Your task to perform on an android device: open app "eBay: The shopping marketplace" (install if not already installed) and enter user name: "articulated@icloud.com" and password: "excluding" Image 0: 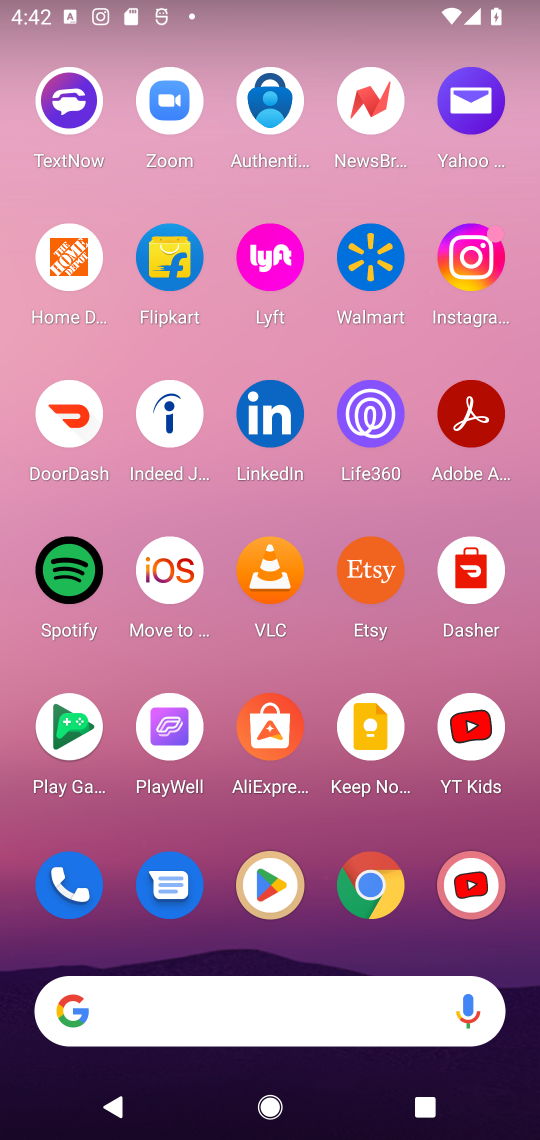
Step 0: click (283, 899)
Your task to perform on an android device: open app "eBay: The shopping marketplace" (install if not already installed) and enter user name: "articulated@icloud.com" and password: "excluding" Image 1: 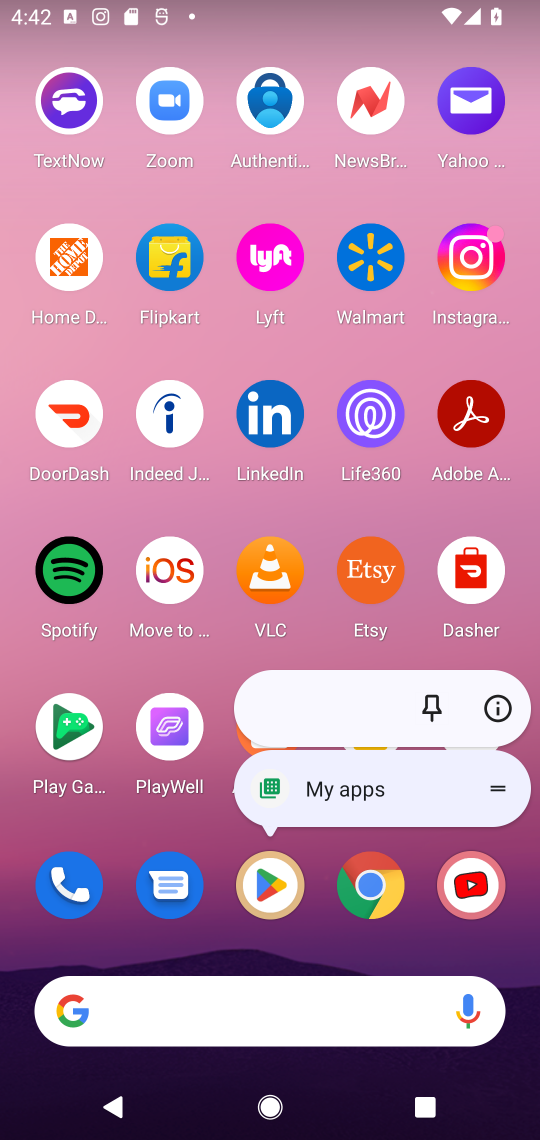
Step 1: click (262, 885)
Your task to perform on an android device: open app "eBay: The shopping marketplace" (install if not already installed) and enter user name: "articulated@icloud.com" and password: "excluding" Image 2: 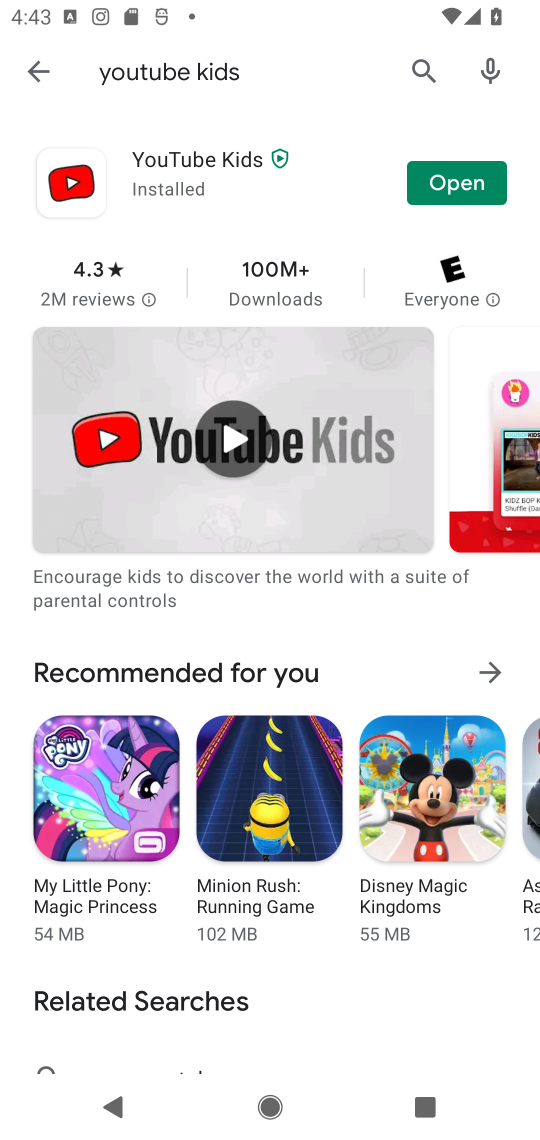
Step 2: click (410, 70)
Your task to perform on an android device: open app "eBay: The shopping marketplace" (install if not already installed) and enter user name: "articulated@icloud.com" and password: "excluding" Image 3: 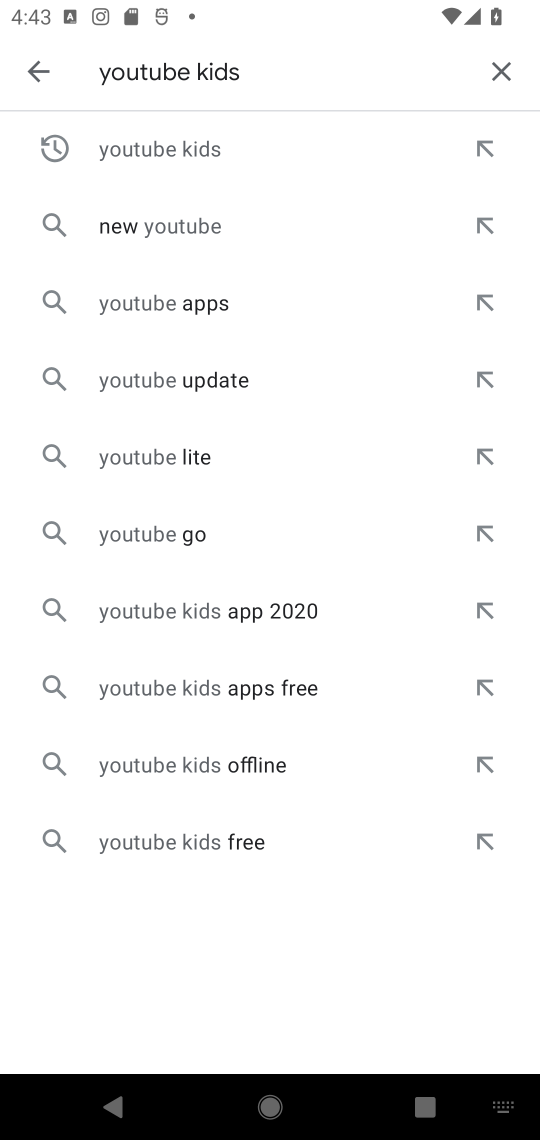
Step 3: click (495, 68)
Your task to perform on an android device: open app "eBay: The shopping marketplace" (install if not already installed) and enter user name: "articulated@icloud.com" and password: "excluding" Image 4: 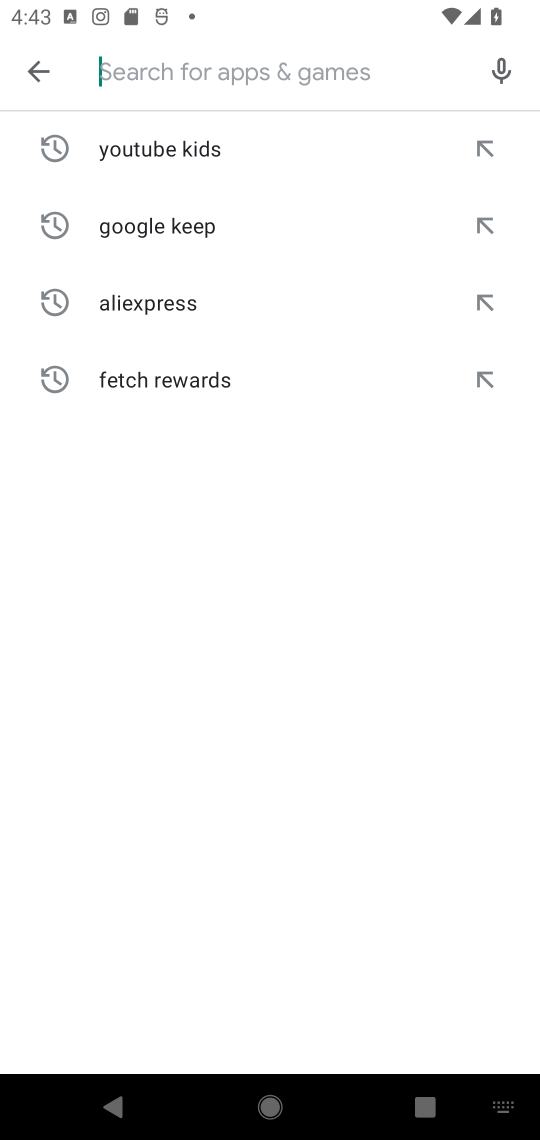
Step 4: type "eBay"
Your task to perform on an android device: open app "eBay: The shopping marketplace" (install if not already installed) and enter user name: "articulated@icloud.com" and password: "excluding" Image 5: 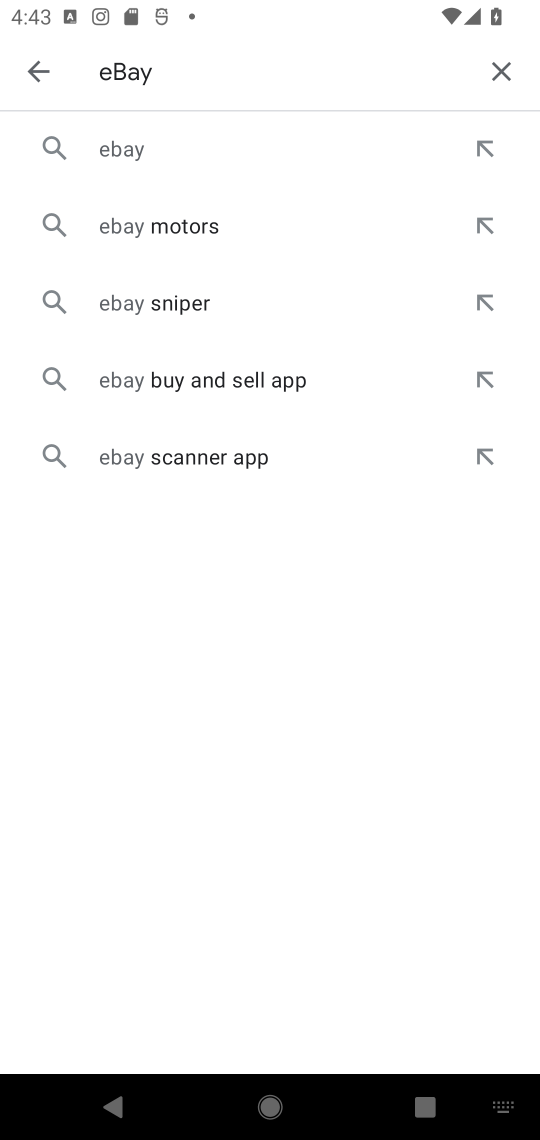
Step 5: click (156, 148)
Your task to perform on an android device: open app "eBay: The shopping marketplace" (install if not already installed) and enter user name: "articulated@icloud.com" and password: "excluding" Image 6: 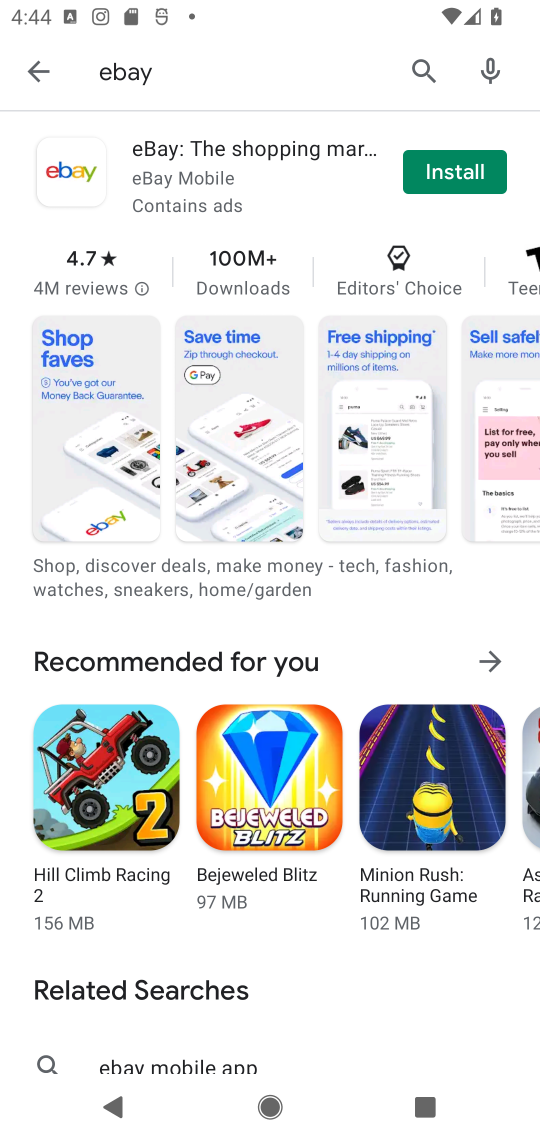
Step 6: click (458, 172)
Your task to perform on an android device: open app "eBay: The shopping marketplace" (install if not already installed) and enter user name: "articulated@icloud.com" and password: "excluding" Image 7: 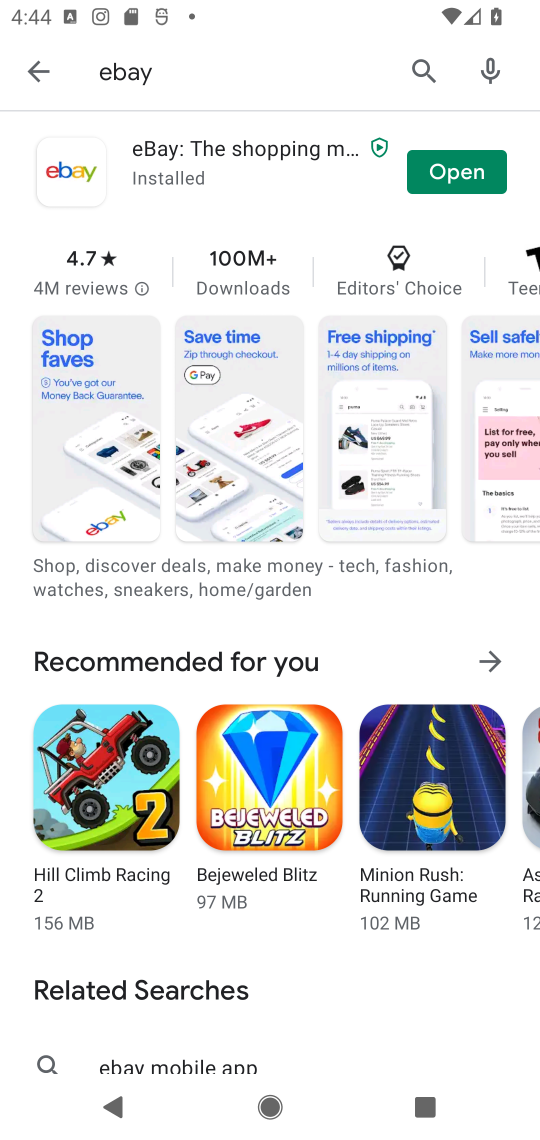
Step 7: click (459, 168)
Your task to perform on an android device: open app "eBay: The shopping marketplace" (install if not already installed) and enter user name: "articulated@icloud.com" and password: "excluding" Image 8: 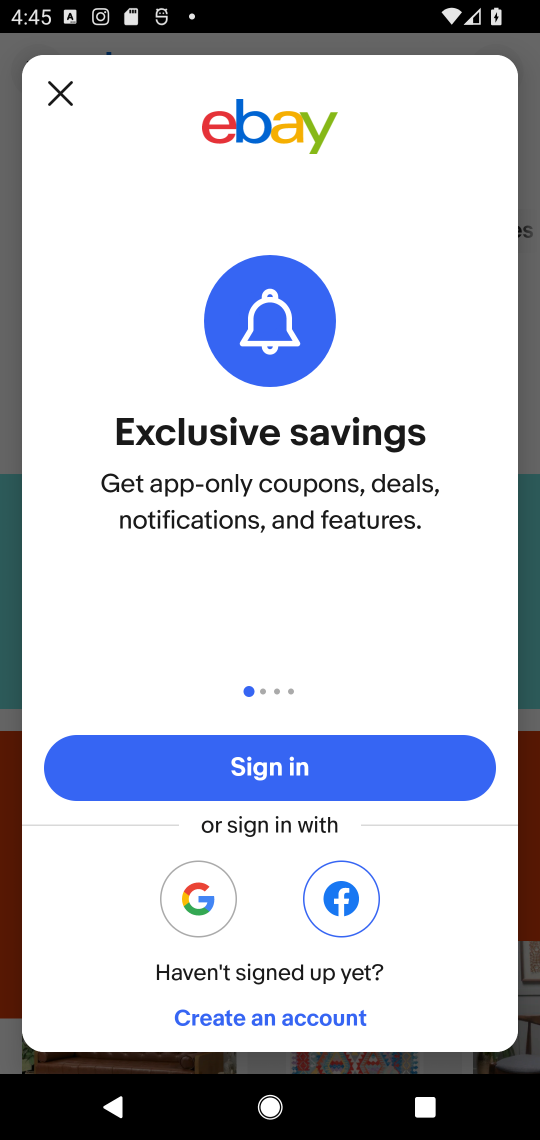
Step 8: click (257, 770)
Your task to perform on an android device: open app "eBay: The shopping marketplace" (install if not already installed) and enter user name: "articulated@icloud.com" and password: "excluding" Image 9: 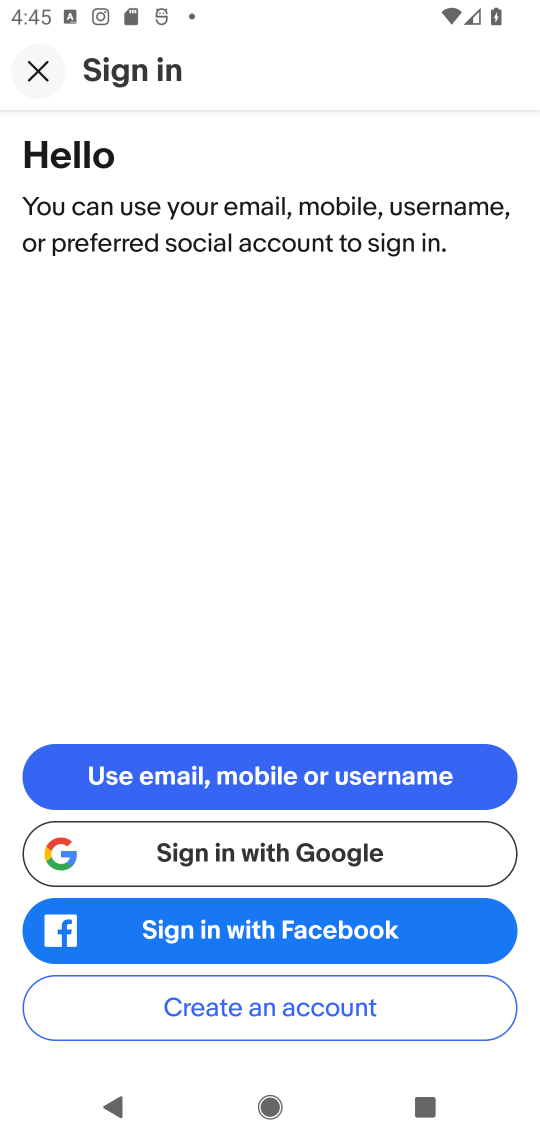
Step 9: click (239, 773)
Your task to perform on an android device: open app "eBay: The shopping marketplace" (install if not already installed) and enter user name: "articulated@icloud.com" and password: "excluding" Image 10: 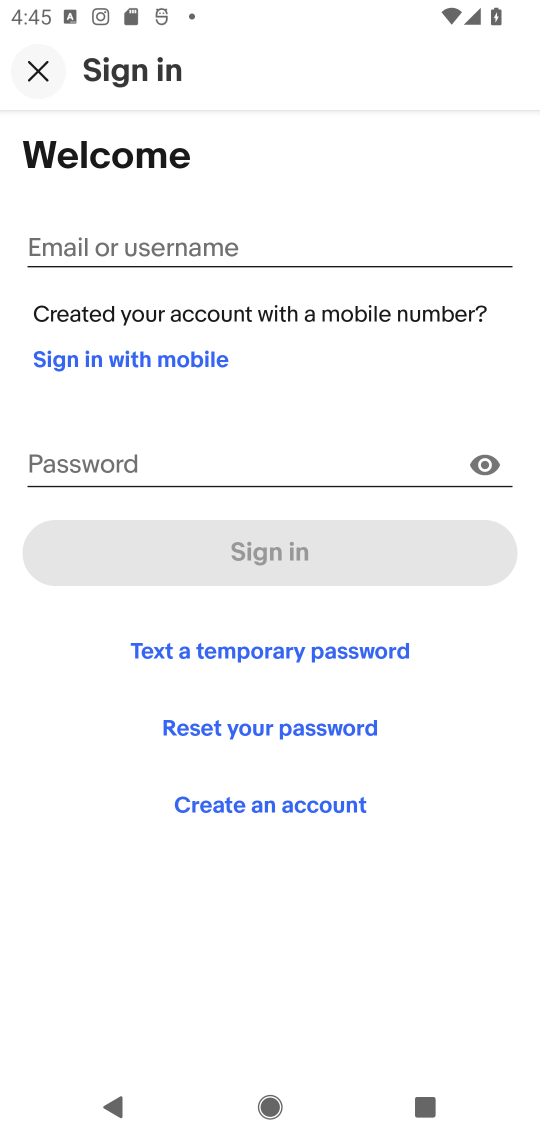
Step 10: click (92, 244)
Your task to perform on an android device: open app "eBay: The shopping marketplace" (install if not already installed) and enter user name: "articulated@icloud.com" and password: "excluding" Image 11: 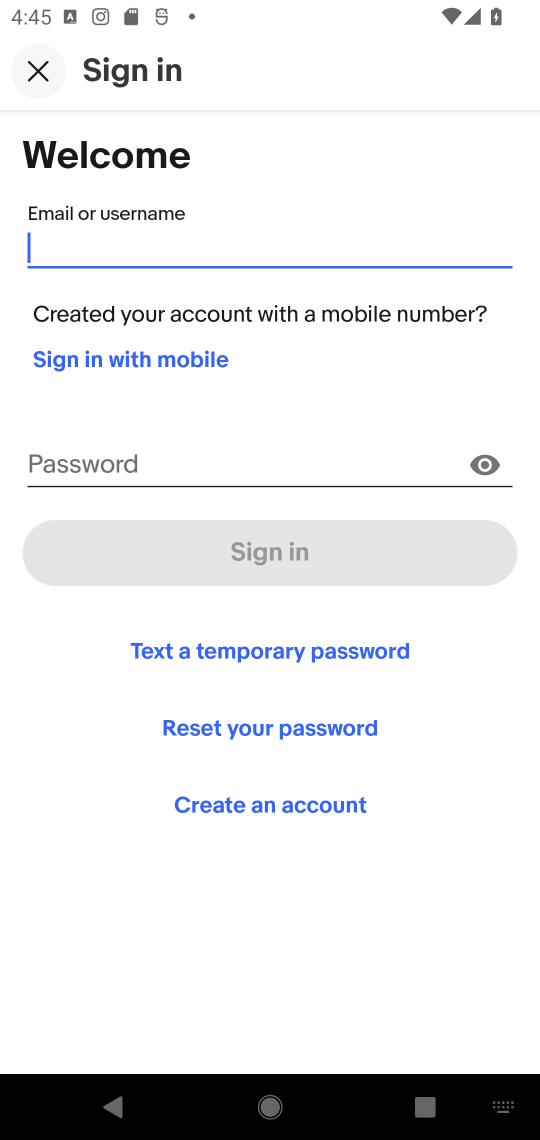
Step 11: type "articulated@icloud.com"
Your task to perform on an android device: open app "eBay: The shopping marketplace" (install if not already installed) and enter user name: "articulated@icloud.com" and password: "excluding" Image 12: 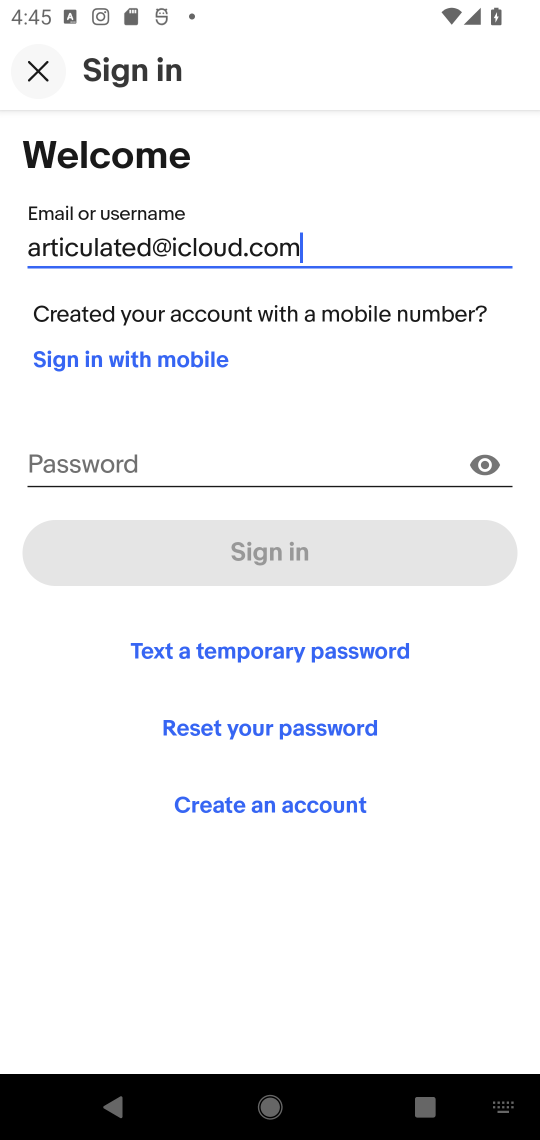
Step 12: click (156, 459)
Your task to perform on an android device: open app "eBay: The shopping marketplace" (install if not already installed) and enter user name: "articulated@icloud.com" and password: "excluding" Image 13: 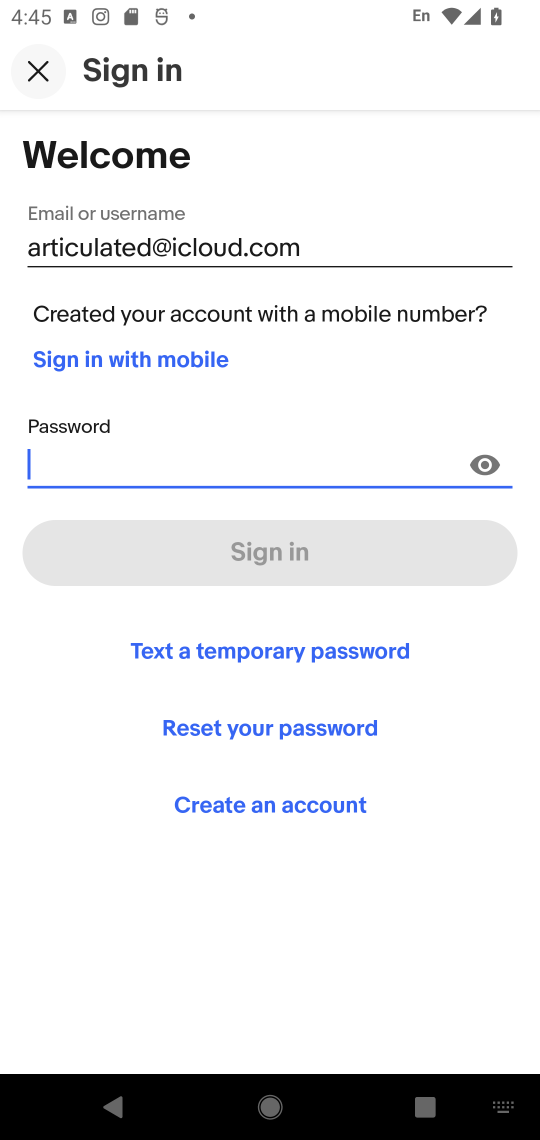
Step 13: type "excluding"
Your task to perform on an android device: open app "eBay: The shopping marketplace" (install if not already installed) and enter user name: "articulated@icloud.com" and password: "excluding" Image 14: 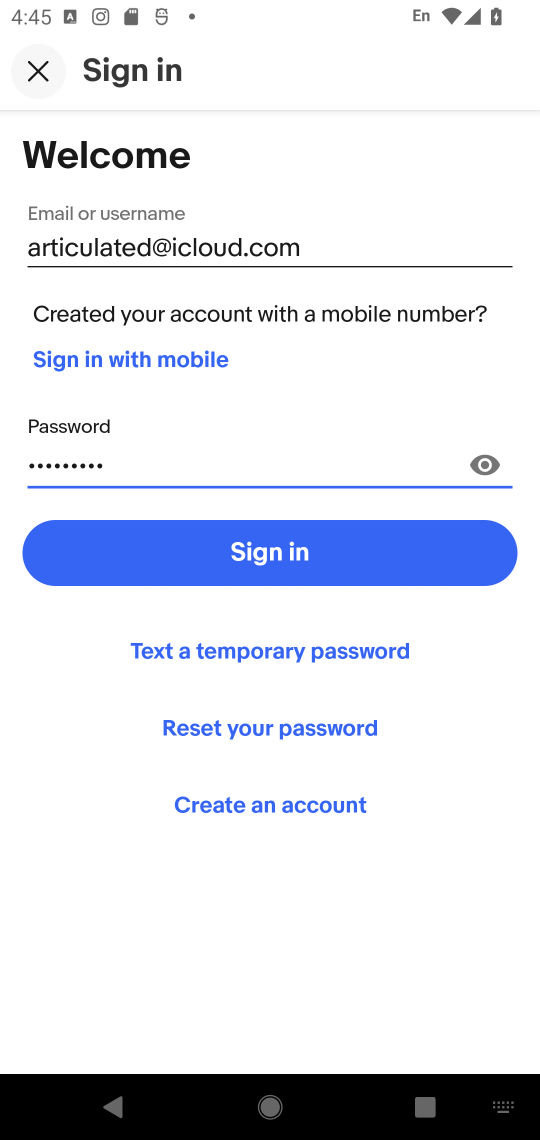
Step 14: click (288, 560)
Your task to perform on an android device: open app "eBay: The shopping marketplace" (install if not already installed) and enter user name: "articulated@icloud.com" and password: "excluding" Image 15: 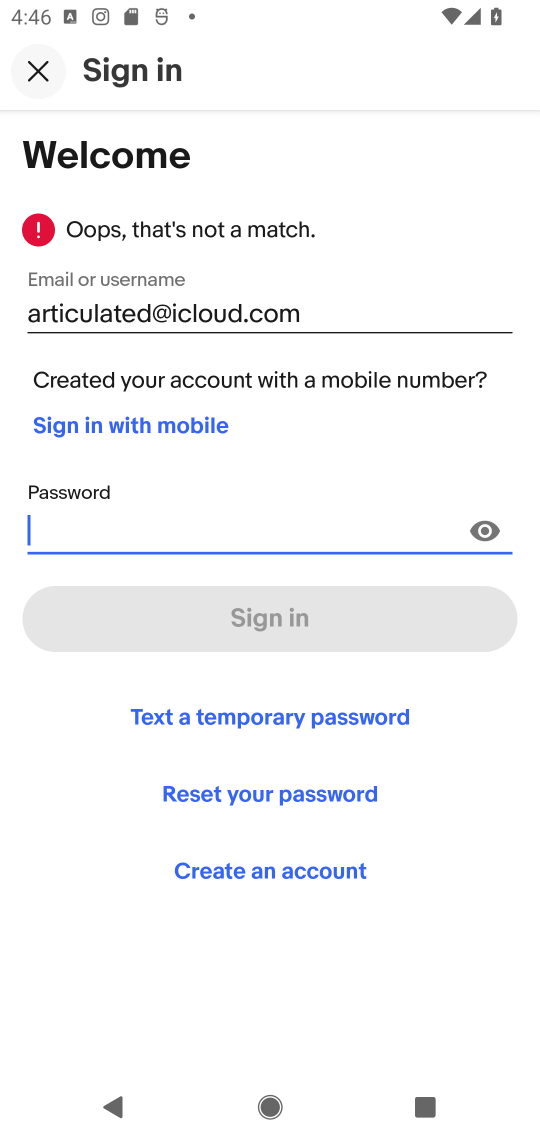
Step 15: task complete